Your task to perform on an android device: Show me the alarms in the clock app Image 0: 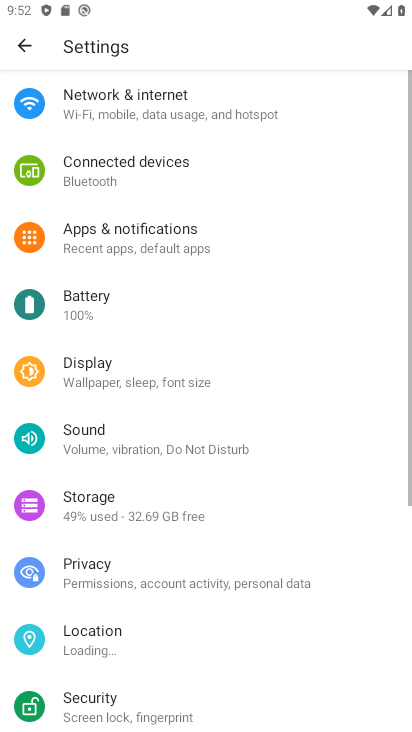
Step 0: press home button
Your task to perform on an android device: Show me the alarms in the clock app Image 1: 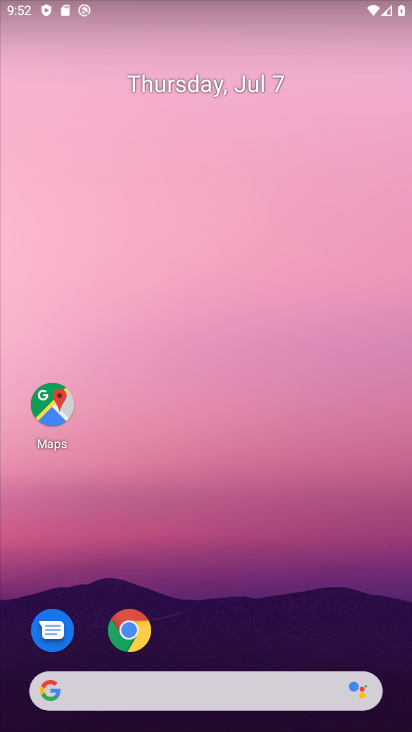
Step 1: drag from (211, 655) to (272, 9)
Your task to perform on an android device: Show me the alarms in the clock app Image 2: 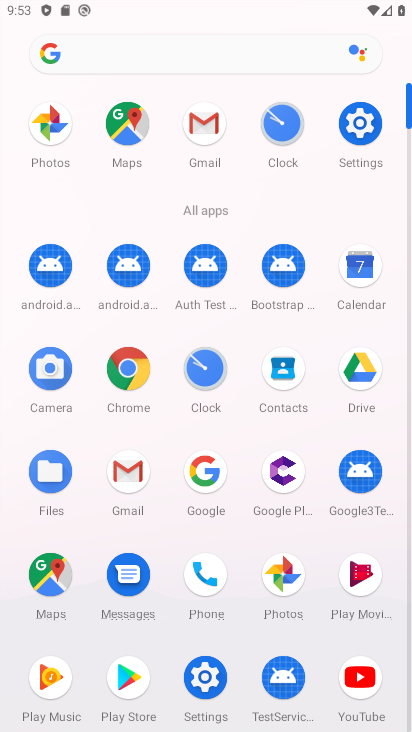
Step 2: click (278, 120)
Your task to perform on an android device: Show me the alarms in the clock app Image 3: 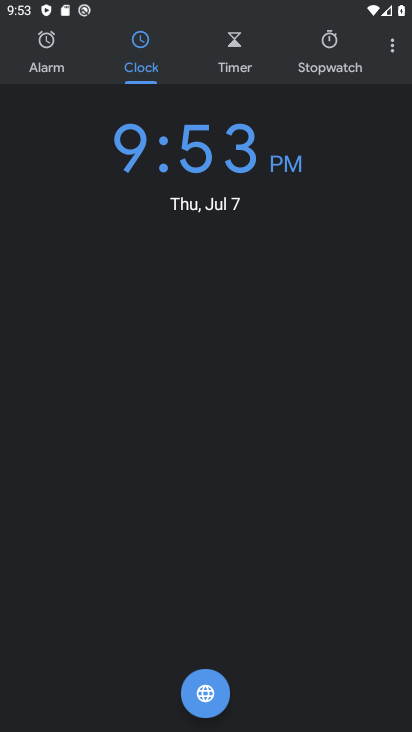
Step 3: click (52, 46)
Your task to perform on an android device: Show me the alarms in the clock app Image 4: 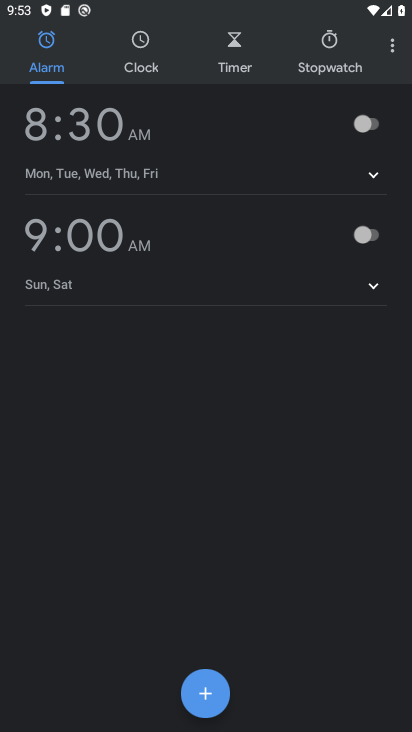
Step 4: task complete